Your task to perform on an android device: turn notification dots on Image 0: 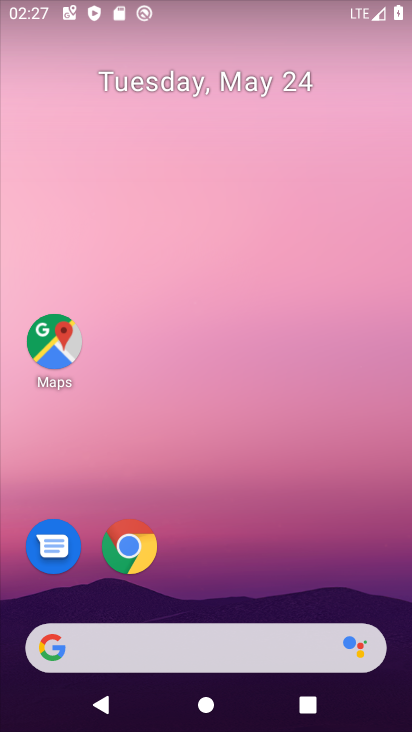
Step 0: drag from (198, 573) to (339, 8)
Your task to perform on an android device: turn notification dots on Image 1: 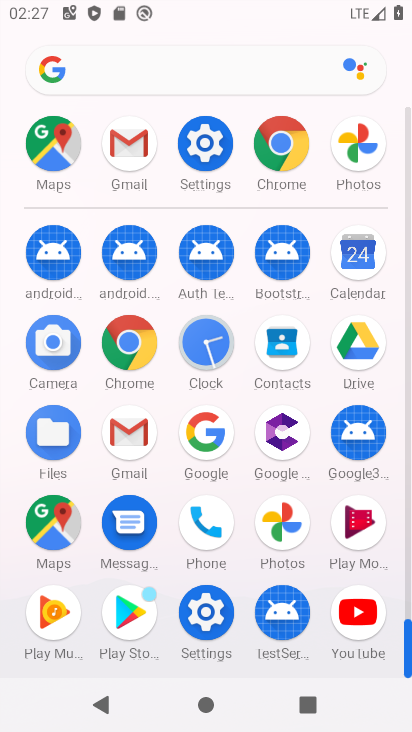
Step 1: click (198, 141)
Your task to perform on an android device: turn notification dots on Image 2: 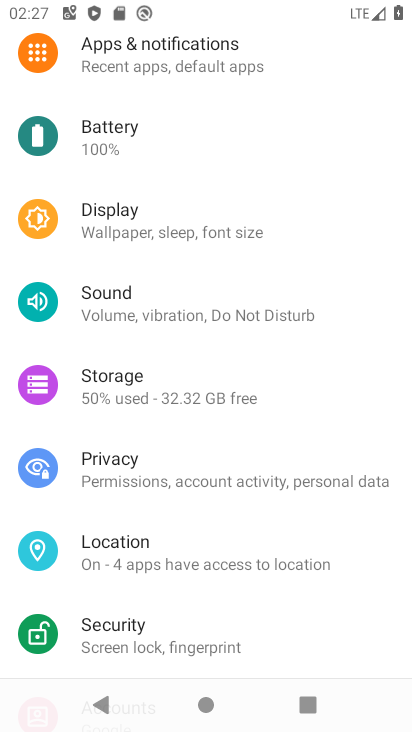
Step 2: click (155, 54)
Your task to perform on an android device: turn notification dots on Image 3: 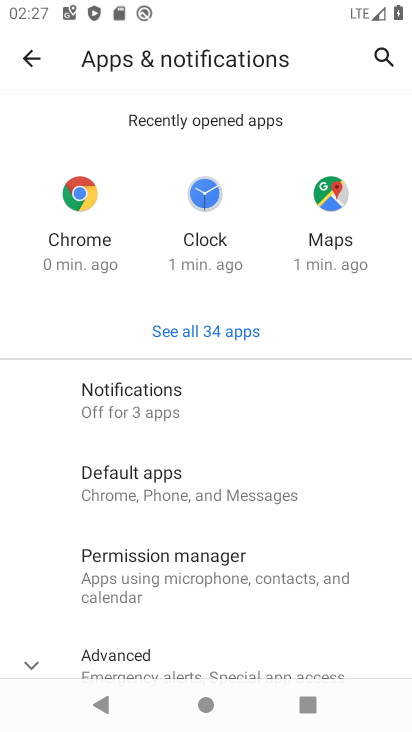
Step 3: click (178, 412)
Your task to perform on an android device: turn notification dots on Image 4: 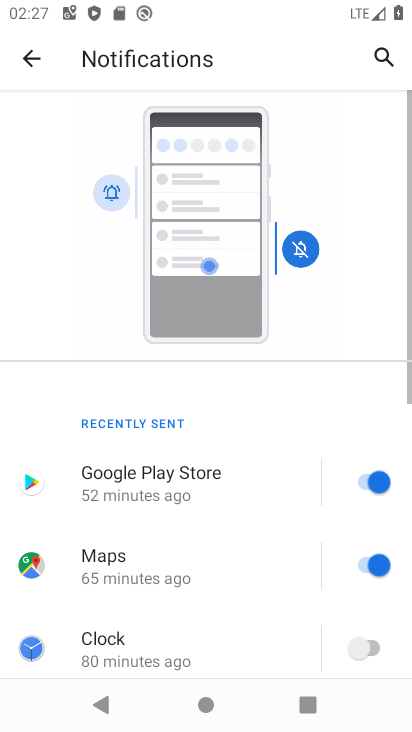
Step 4: drag from (179, 622) to (402, 235)
Your task to perform on an android device: turn notification dots on Image 5: 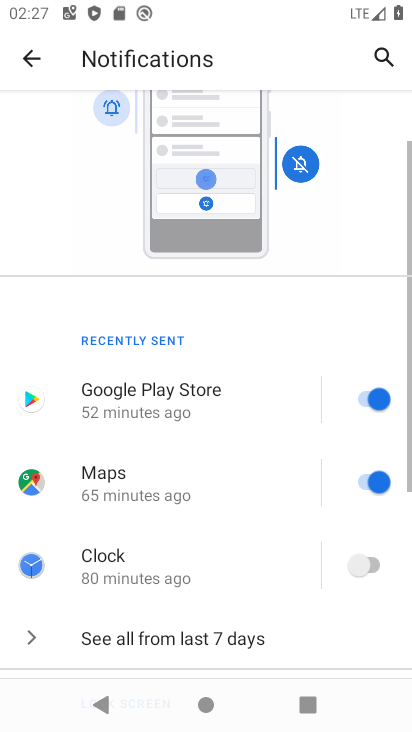
Step 5: click (182, 657)
Your task to perform on an android device: turn notification dots on Image 6: 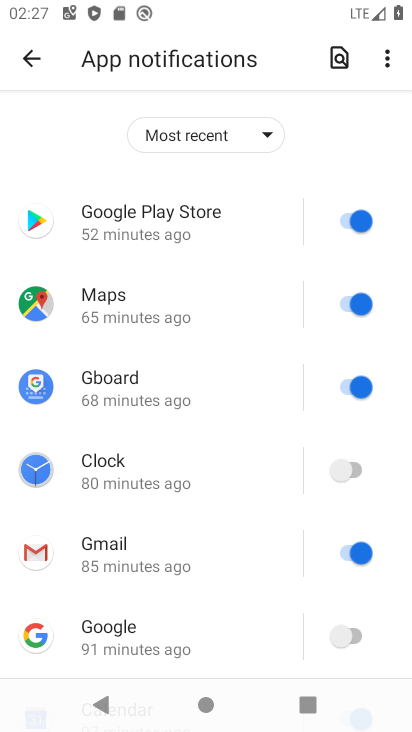
Step 6: click (37, 51)
Your task to perform on an android device: turn notification dots on Image 7: 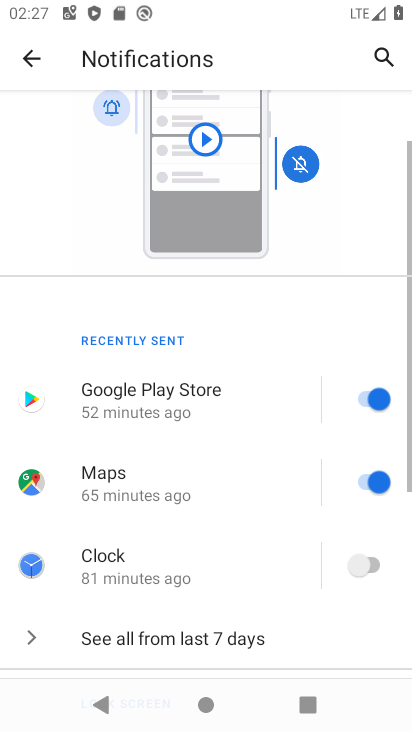
Step 7: drag from (225, 496) to (360, 10)
Your task to perform on an android device: turn notification dots on Image 8: 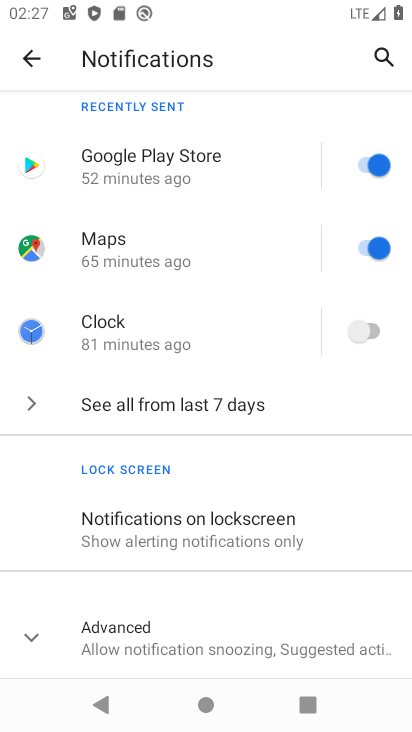
Step 8: click (128, 646)
Your task to perform on an android device: turn notification dots on Image 9: 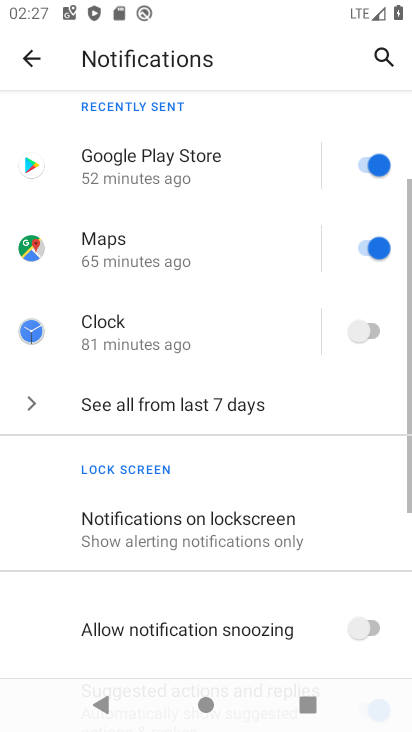
Step 9: task complete